Your task to perform on an android device: move an email to a new category in the gmail app Image 0: 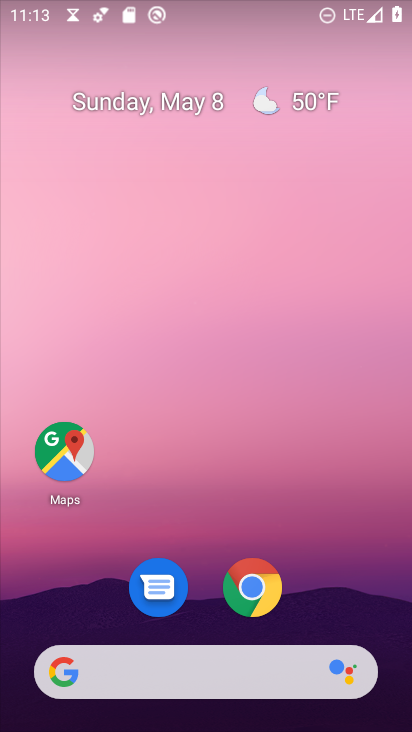
Step 0: drag from (329, 589) to (203, 140)
Your task to perform on an android device: move an email to a new category in the gmail app Image 1: 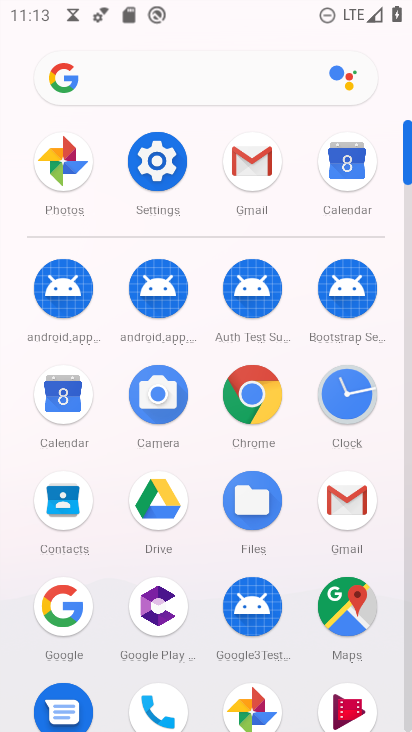
Step 1: click (259, 165)
Your task to perform on an android device: move an email to a new category in the gmail app Image 2: 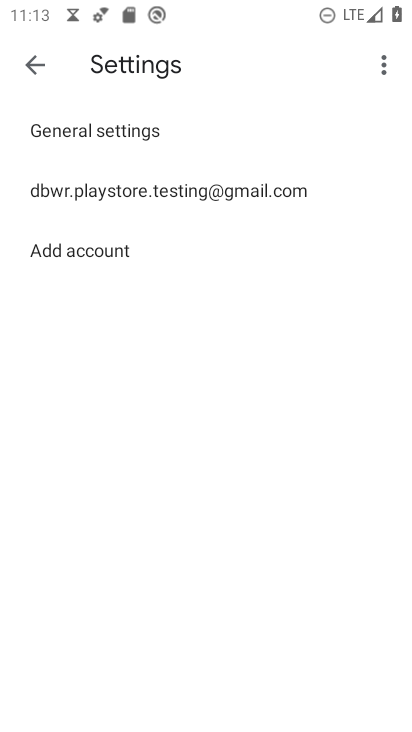
Step 2: press back button
Your task to perform on an android device: move an email to a new category in the gmail app Image 3: 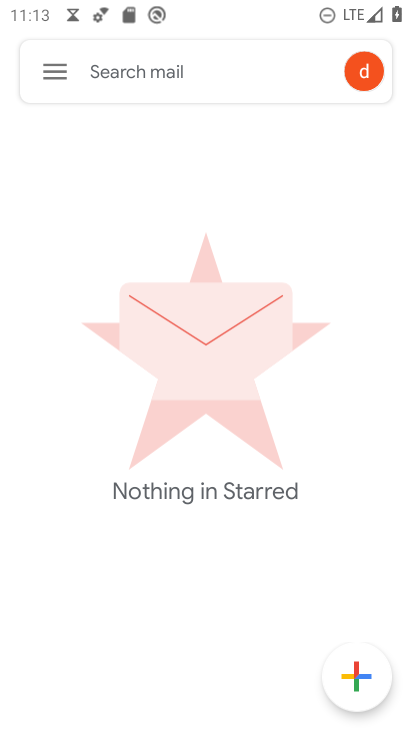
Step 3: click (50, 70)
Your task to perform on an android device: move an email to a new category in the gmail app Image 4: 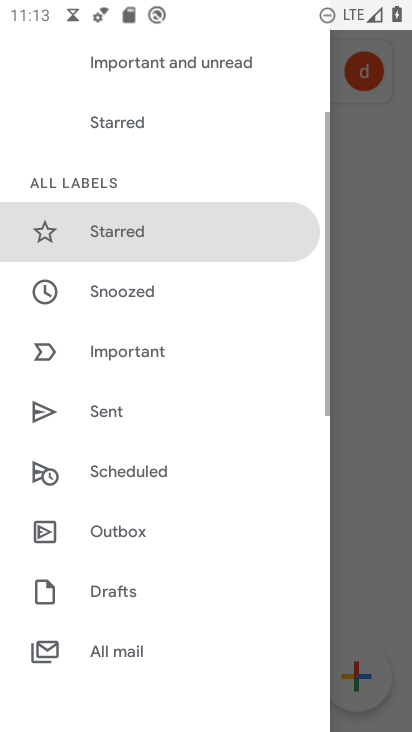
Step 4: drag from (172, 141) to (149, 444)
Your task to perform on an android device: move an email to a new category in the gmail app Image 5: 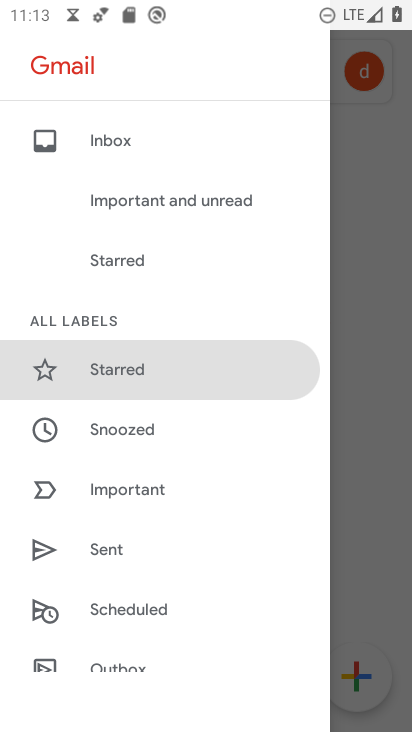
Step 5: click (357, 287)
Your task to perform on an android device: move an email to a new category in the gmail app Image 6: 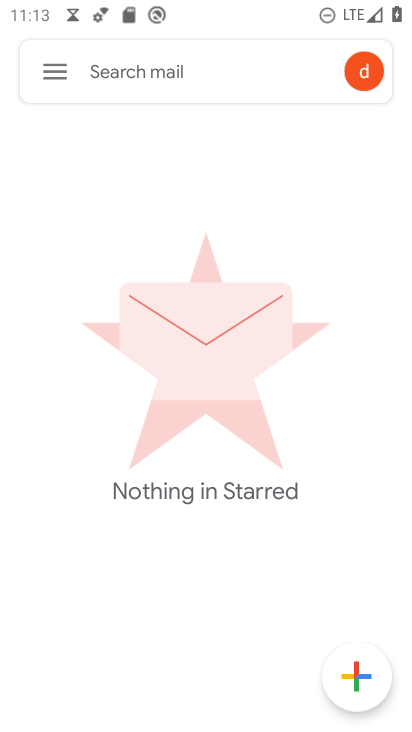
Step 6: click (51, 69)
Your task to perform on an android device: move an email to a new category in the gmail app Image 7: 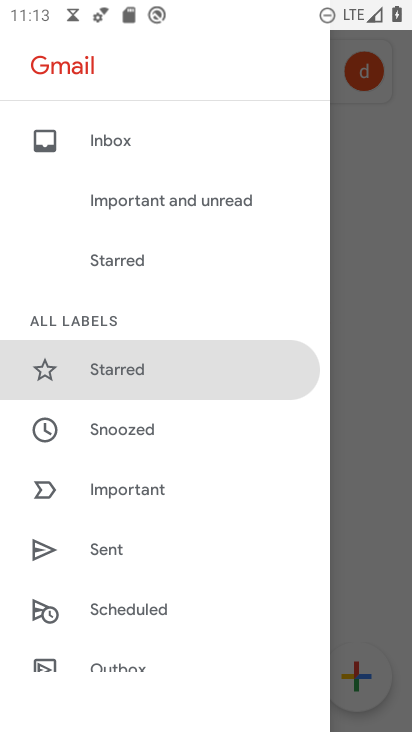
Step 7: drag from (147, 634) to (138, 181)
Your task to perform on an android device: move an email to a new category in the gmail app Image 8: 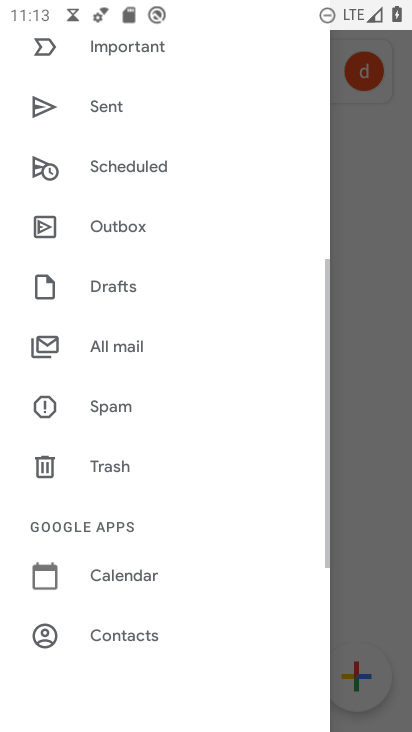
Step 8: drag from (167, 604) to (169, 282)
Your task to perform on an android device: move an email to a new category in the gmail app Image 9: 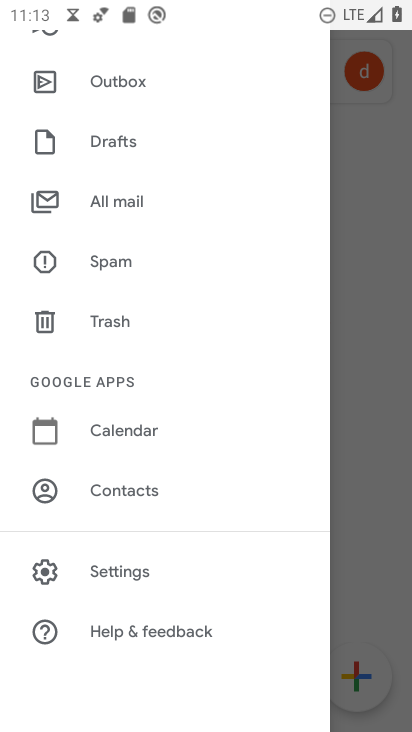
Step 9: drag from (164, 218) to (203, 573)
Your task to perform on an android device: move an email to a new category in the gmail app Image 10: 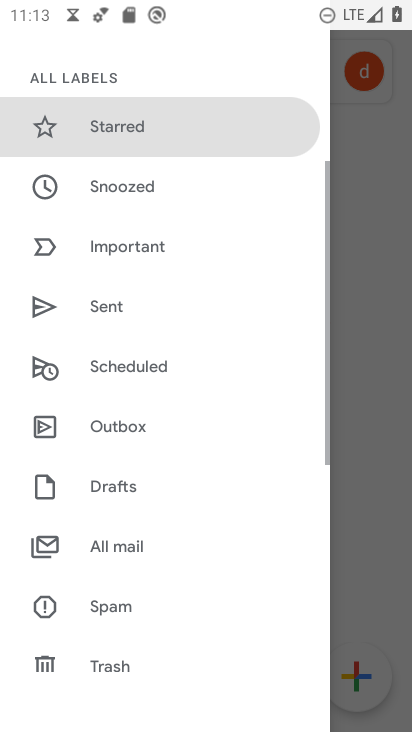
Step 10: drag from (228, 183) to (223, 612)
Your task to perform on an android device: move an email to a new category in the gmail app Image 11: 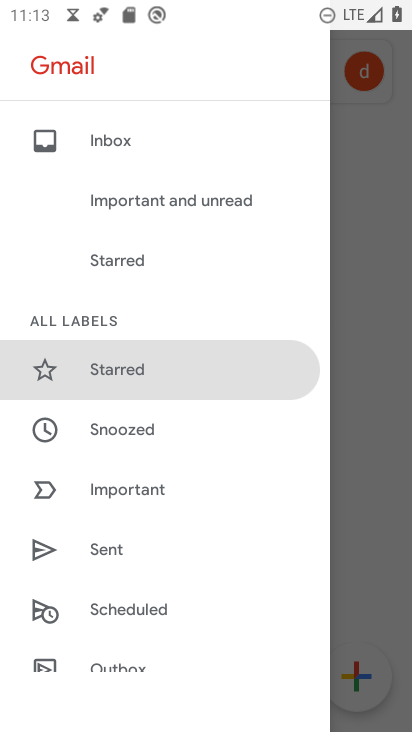
Step 11: click (377, 282)
Your task to perform on an android device: move an email to a new category in the gmail app Image 12: 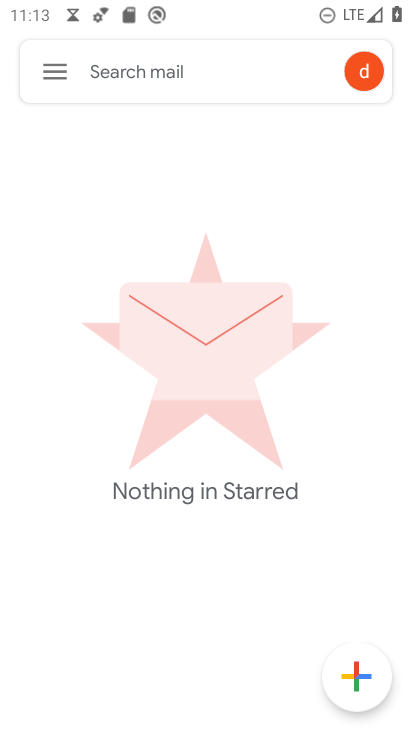
Step 12: task complete